Your task to perform on an android device: Find coffee shops on Maps Image 0: 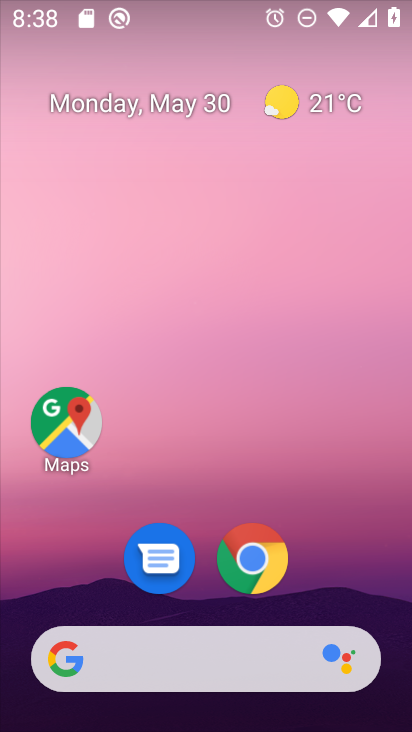
Step 0: click (75, 441)
Your task to perform on an android device: Find coffee shops on Maps Image 1: 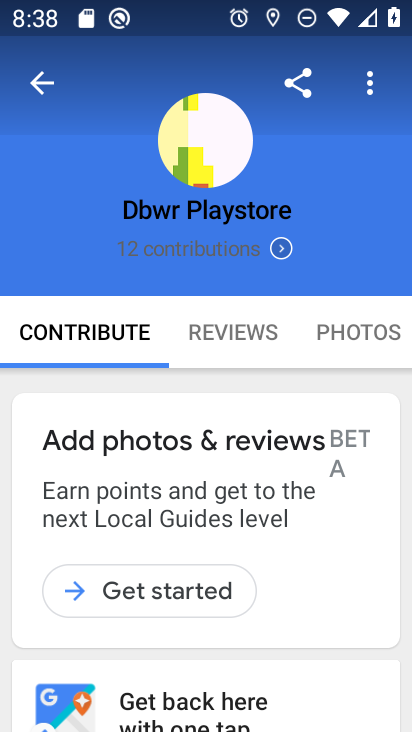
Step 1: click (41, 78)
Your task to perform on an android device: Find coffee shops on Maps Image 2: 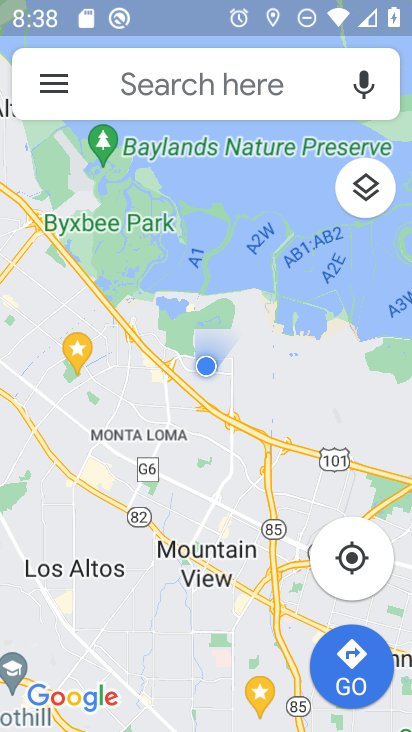
Step 2: click (170, 82)
Your task to perform on an android device: Find coffee shops on Maps Image 3: 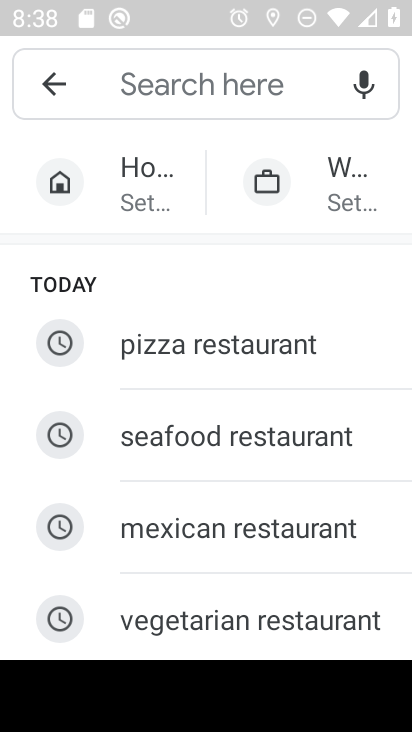
Step 3: click (201, 82)
Your task to perform on an android device: Find coffee shops on Maps Image 4: 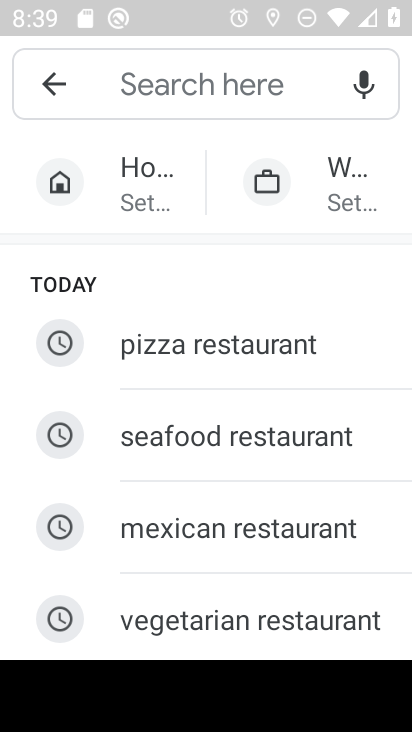
Step 4: type "coffee shops"
Your task to perform on an android device: Find coffee shops on Maps Image 5: 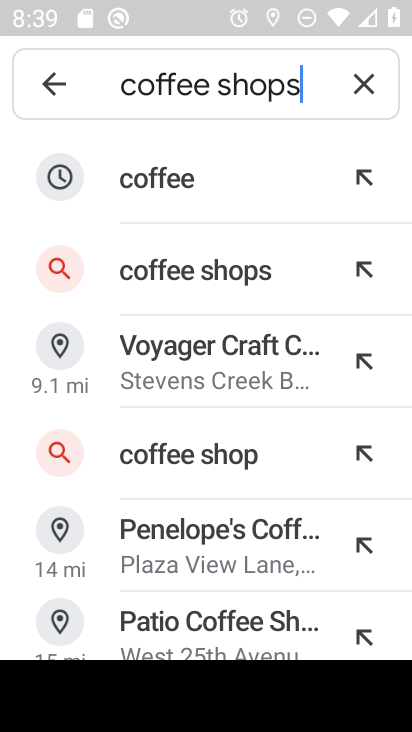
Step 5: click (236, 271)
Your task to perform on an android device: Find coffee shops on Maps Image 6: 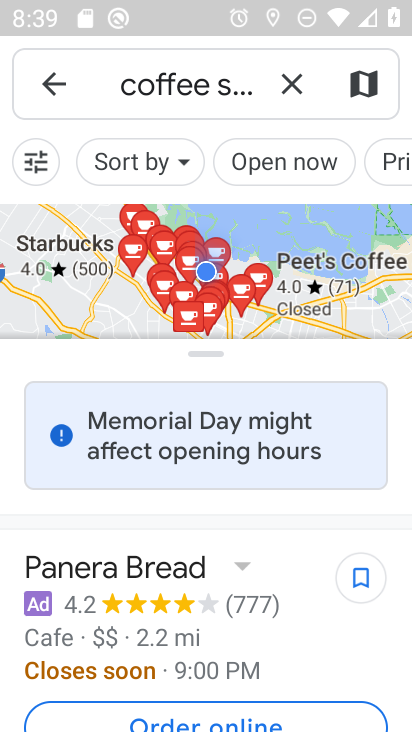
Step 6: task complete